Your task to perform on an android device: Search for sushi restaurants on Maps Image 0: 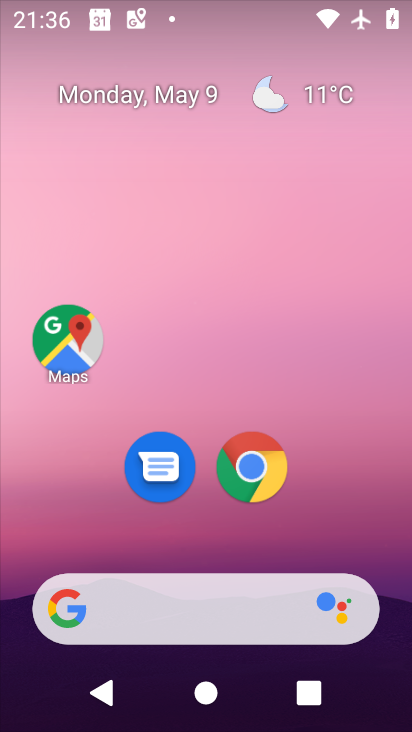
Step 0: drag from (341, 501) to (362, 248)
Your task to perform on an android device: Search for sushi restaurants on Maps Image 1: 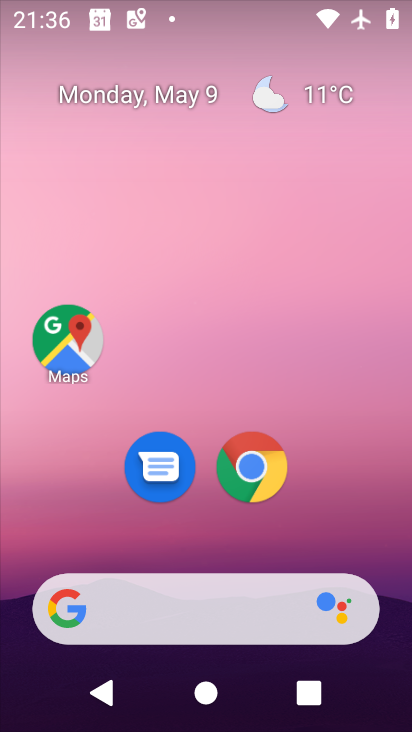
Step 1: drag from (367, 552) to (361, 175)
Your task to perform on an android device: Search for sushi restaurants on Maps Image 2: 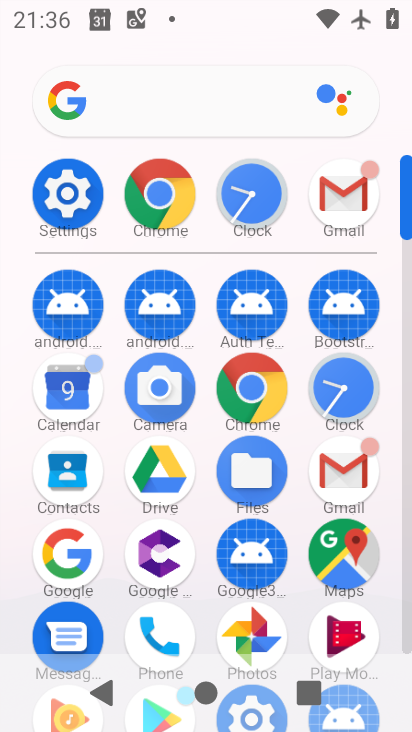
Step 2: click (338, 558)
Your task to perform on an android device: Search for sushi restaurants on Maps Image 3: 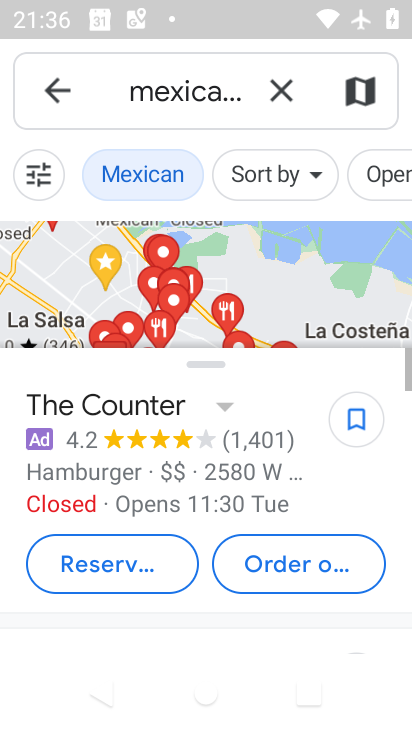
Step 3: click (269, 93)
Your task to perform on an android device: Search for sushi restaurants on Maps Image 4: 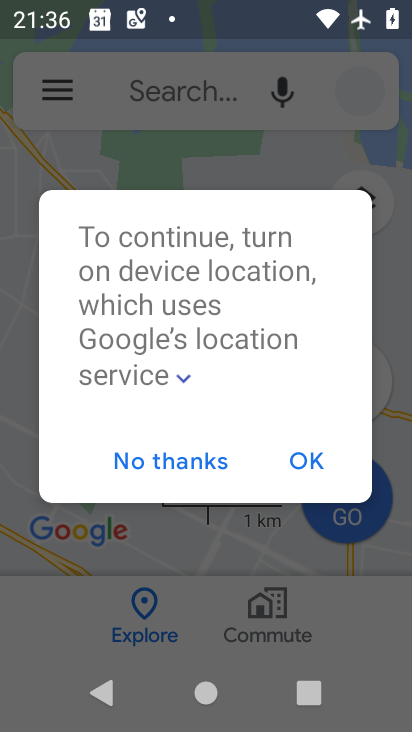
Step 4: click (294, 459)
Your task to perform on an android device: Search for sushi restaurants on Maps Image 5: 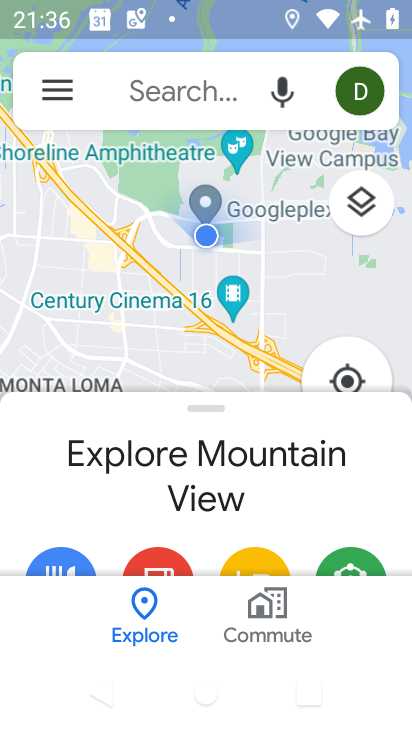
Step 5: click (158, 76)
Your task to perform on an android device: Search for sushi restaurants on Maps Image 6: 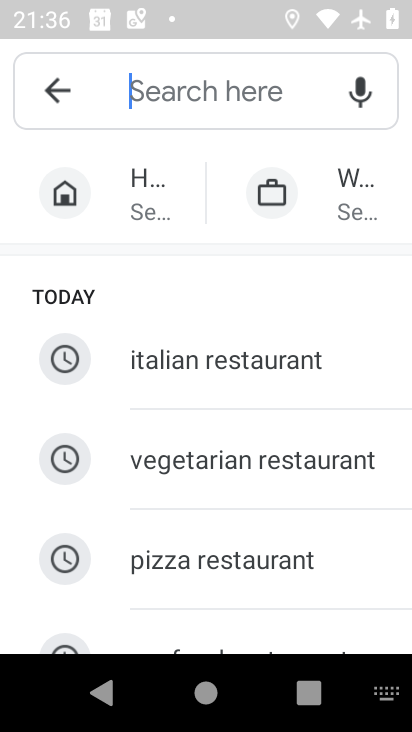
Step 6: drag from (232, 585) to (237, 321)
Your task to perform on an android device: Search for sushi restaurants on Maps Image 7: 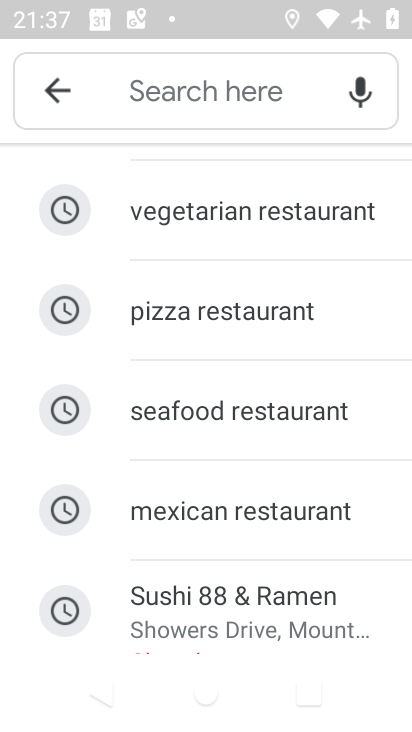
Step 7: drag from (204, 594) to (241, 350)
Your task to perform on an android device: Search for sushi restaurants on Maps Image 8: 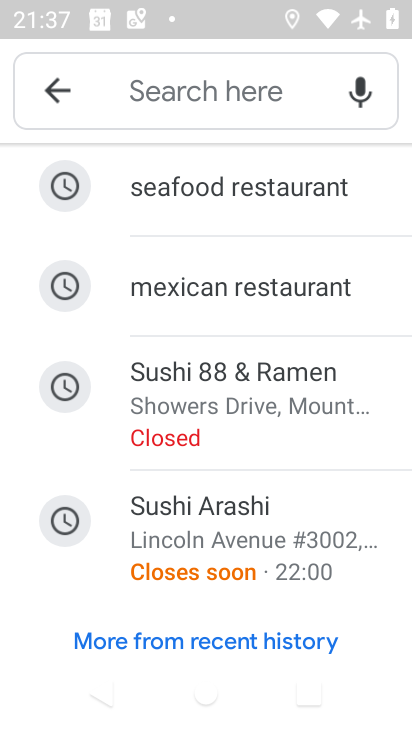
Step 8: click (196, 75)
Your task to perform on an android device: Search for sushi restaurants on Maps Image 9: 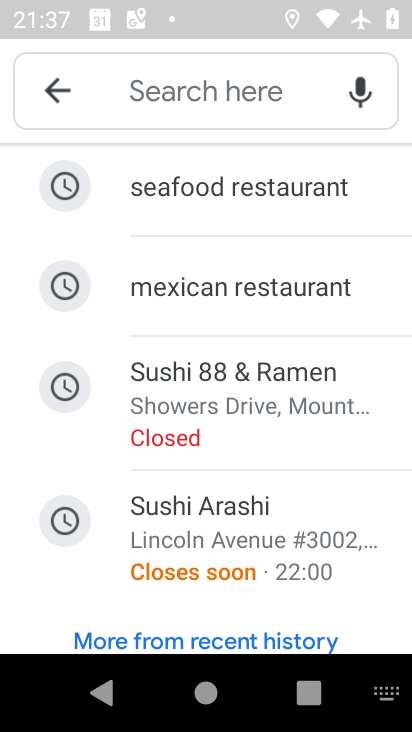
Step 9: type " sushi restaurants"
Your task to perform on an android device: Search for sushi restaurants on Maps Image 10: 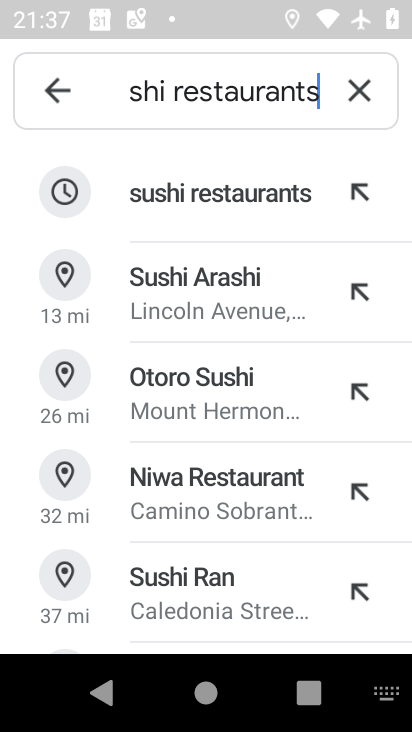
Step 10: click (232, 205)
Your task to perform on an android device: Search for sushi restaurants on Maps Image 11: 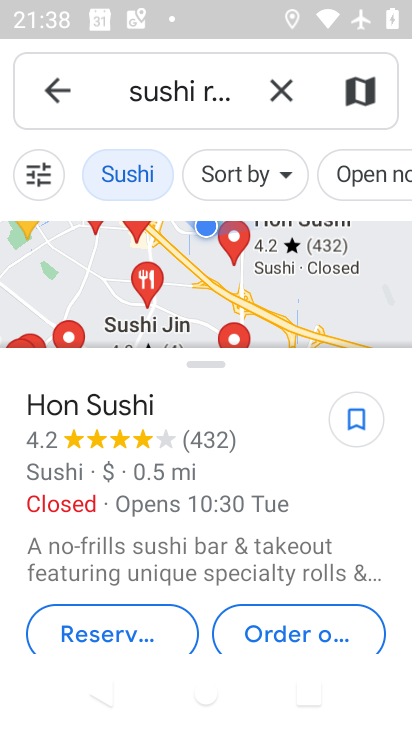
Step 11: task complete